Your task to perform on an android device: Open network settings Image 0: 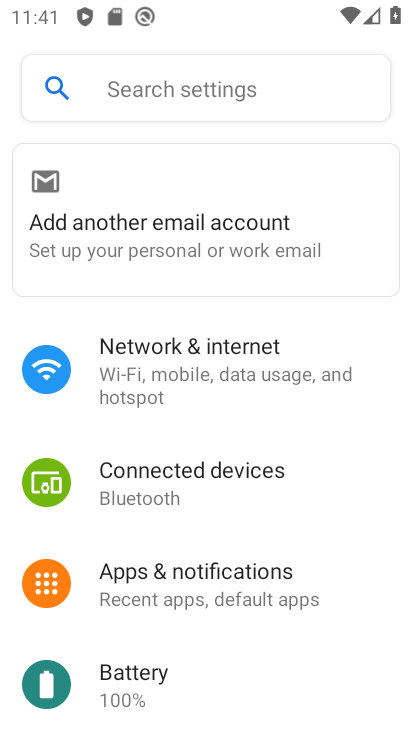
Step 0: click (213, 381)
Your task to perform on an android device: Open network settings Image 1: 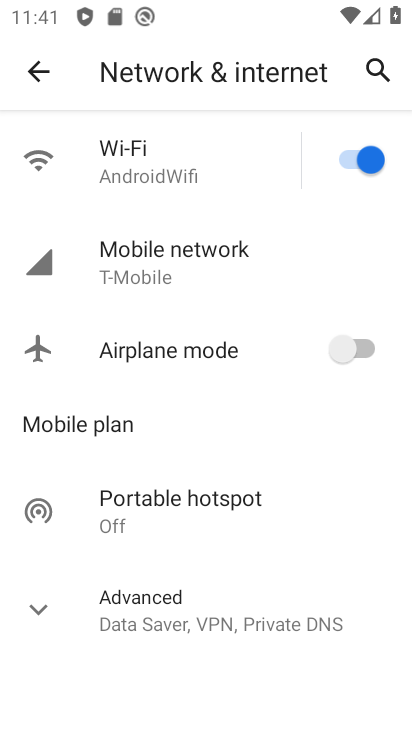
Step 1: task complete